Your task to perform on an android device: open app "VLC for Android" (install if not already installed) Image 0: 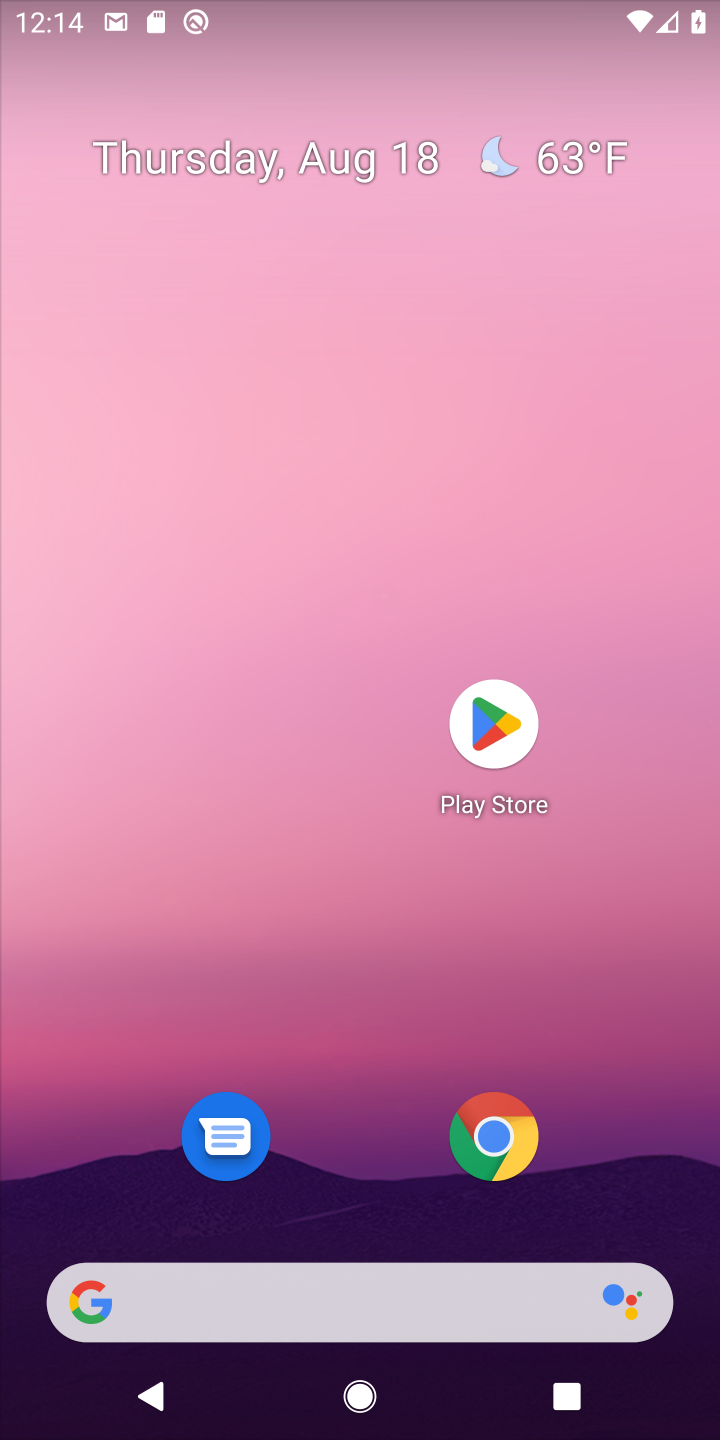
Step 0: press home button
Your task to perform on an android device: open app "VLC for Android" (install if not already installed) Image 1: 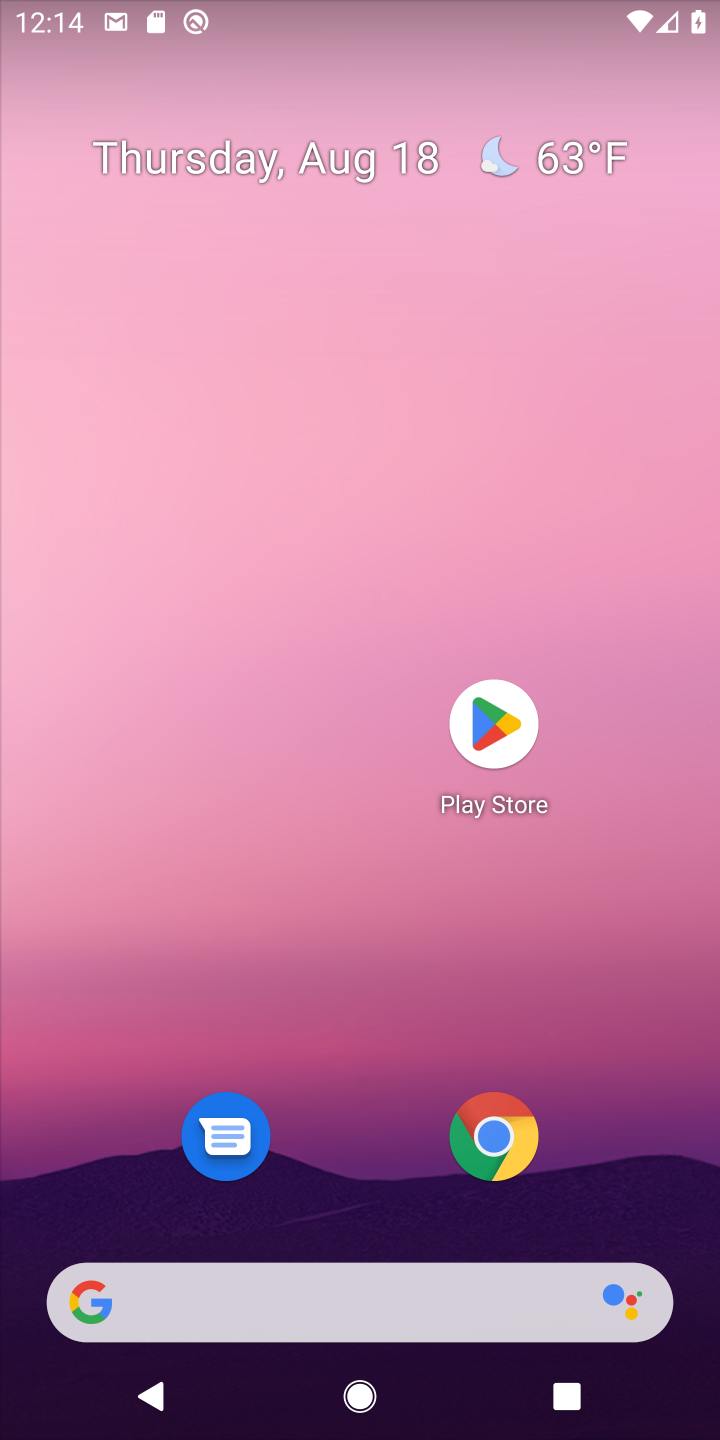
Step 1: click (486, 740)
Your task to perform on an android device: open app "VLC for Android" (install if not already installed) Image 2: 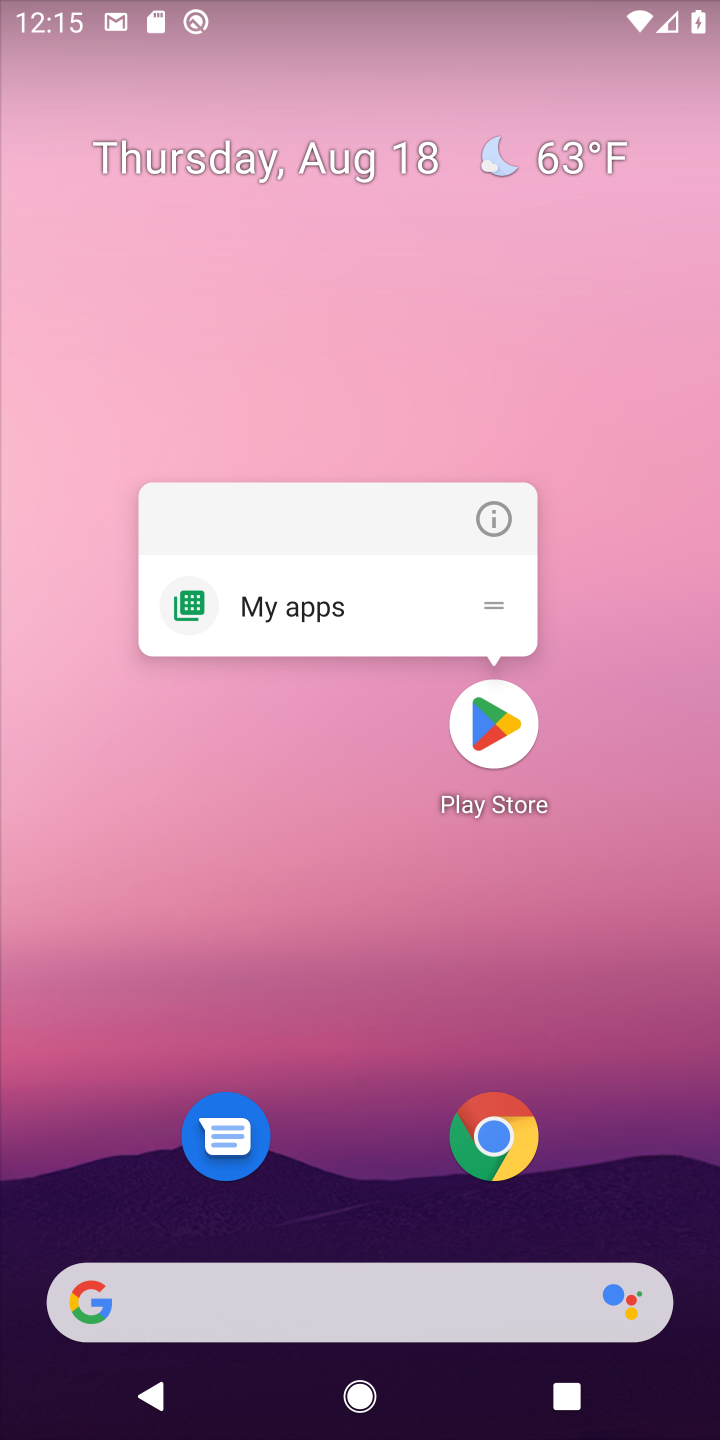
Step 2: click (486, 740)
Your task to perform on an android device: open app "VLC for Android" (install if not already installed) Image 3: 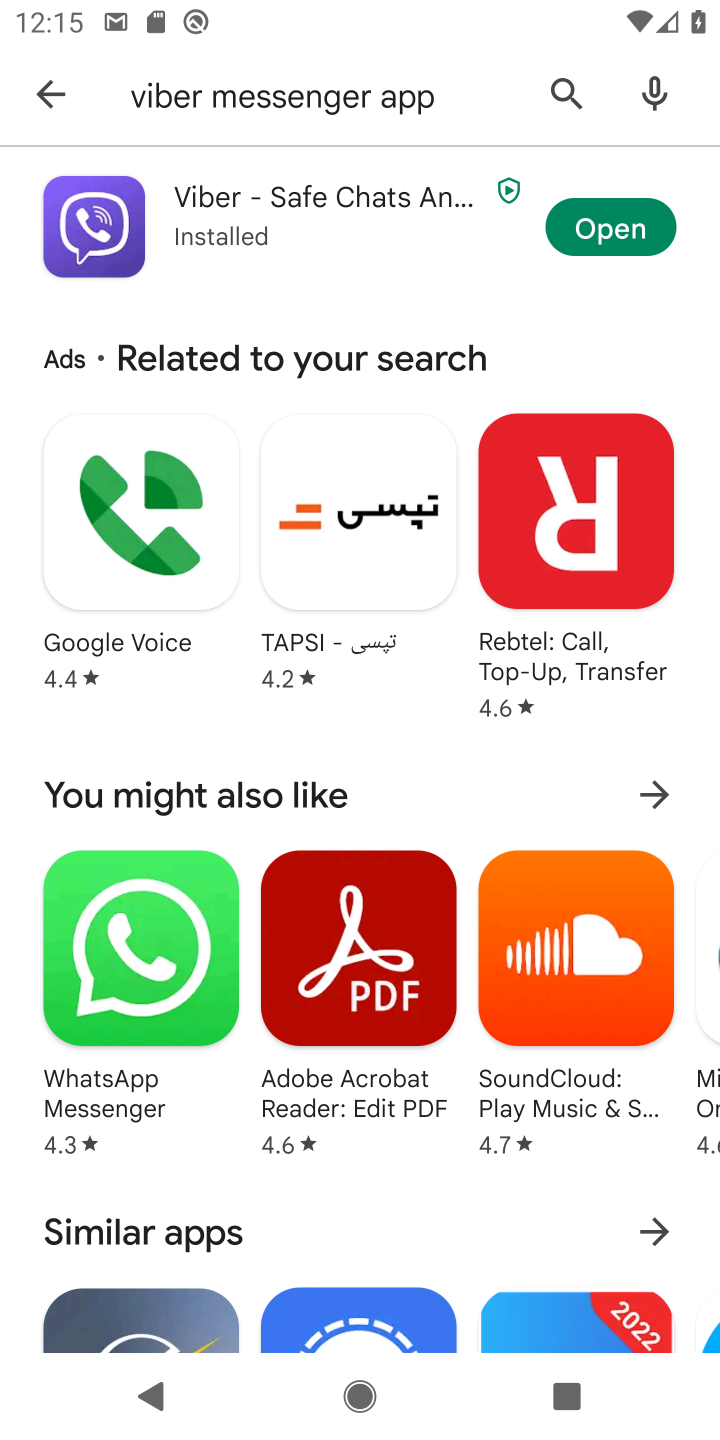
Step 3: click (561, 81)
Your task to perform on an android device: open app "VLC for Android" (install if not already installed) Image 4: 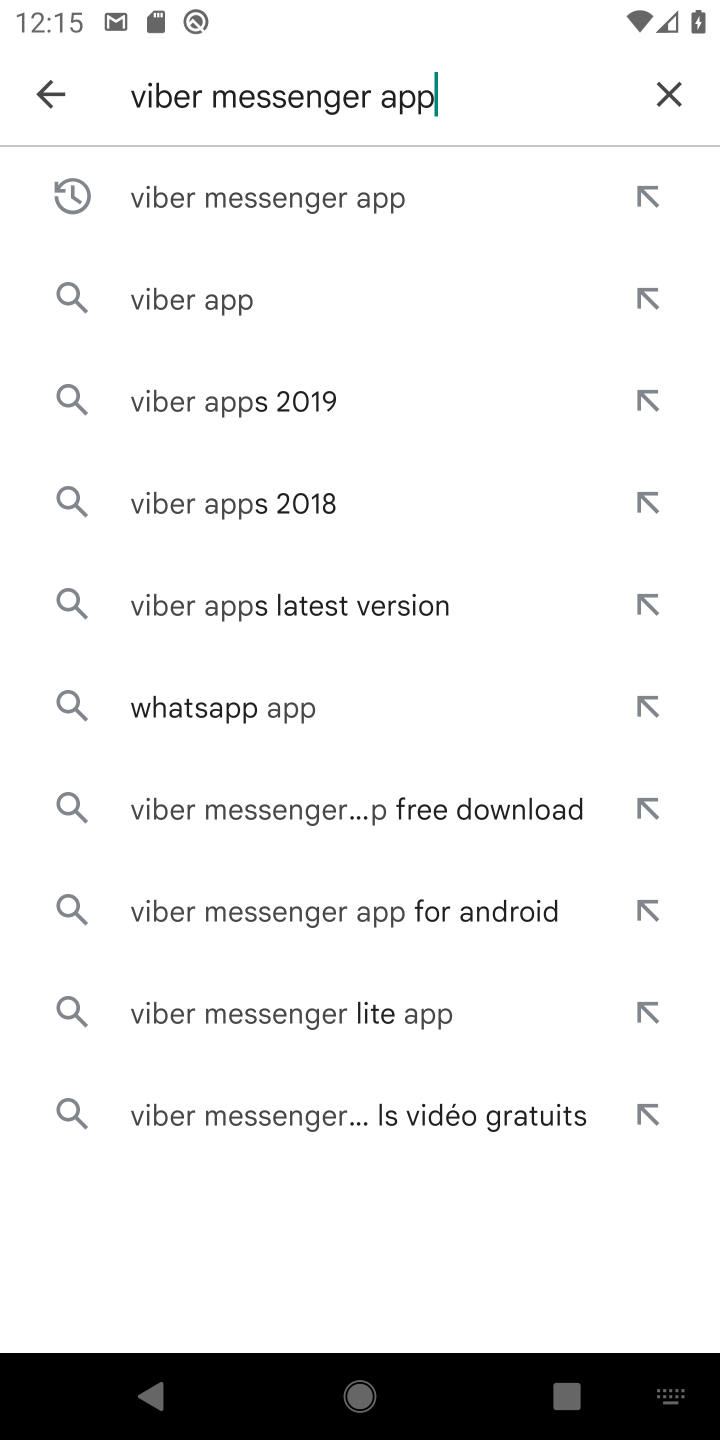
Step 4: click (663, 77)
Your task to perform on an android device: open app "VLC for Android" (install if not already installed) Image 5: 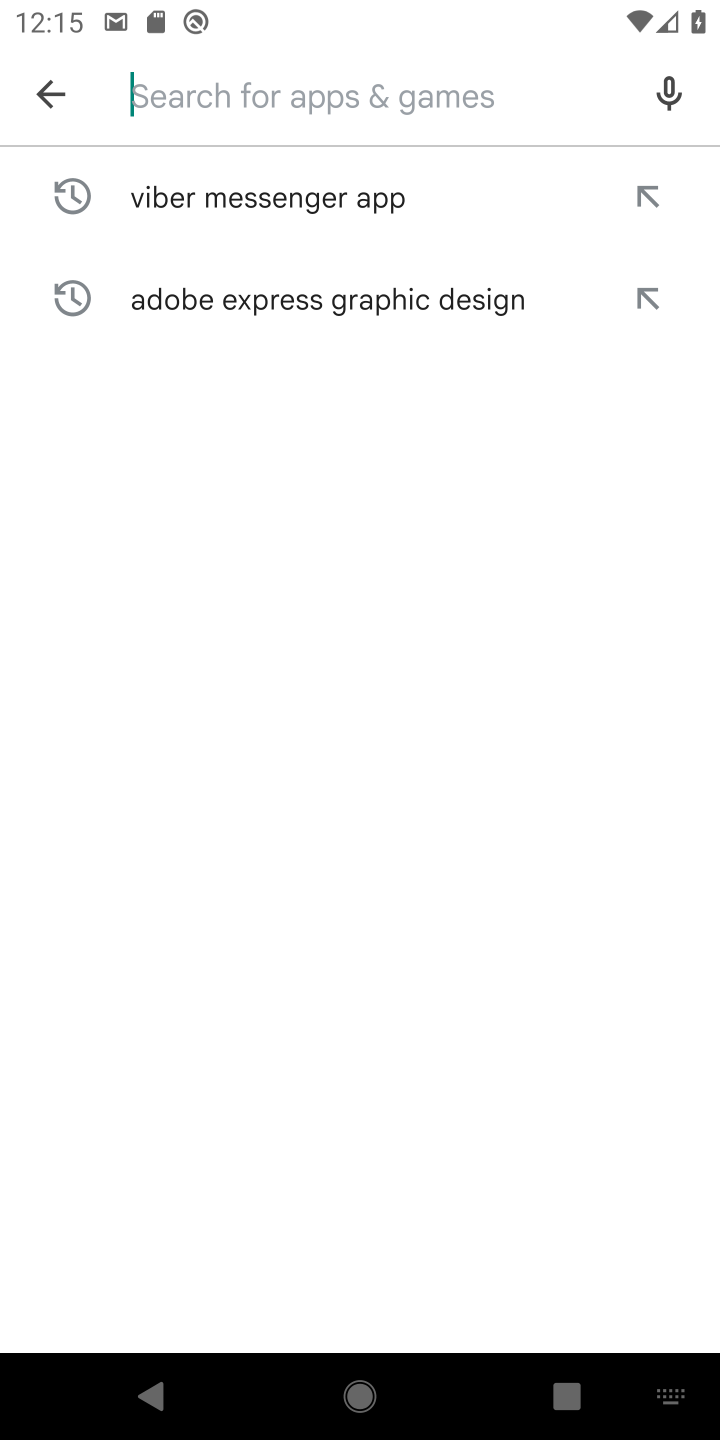
Step 5: type "VLC for Android"
Your task to perform on an android device: open app "VLC for Android" (install if not already installed) Image 6: 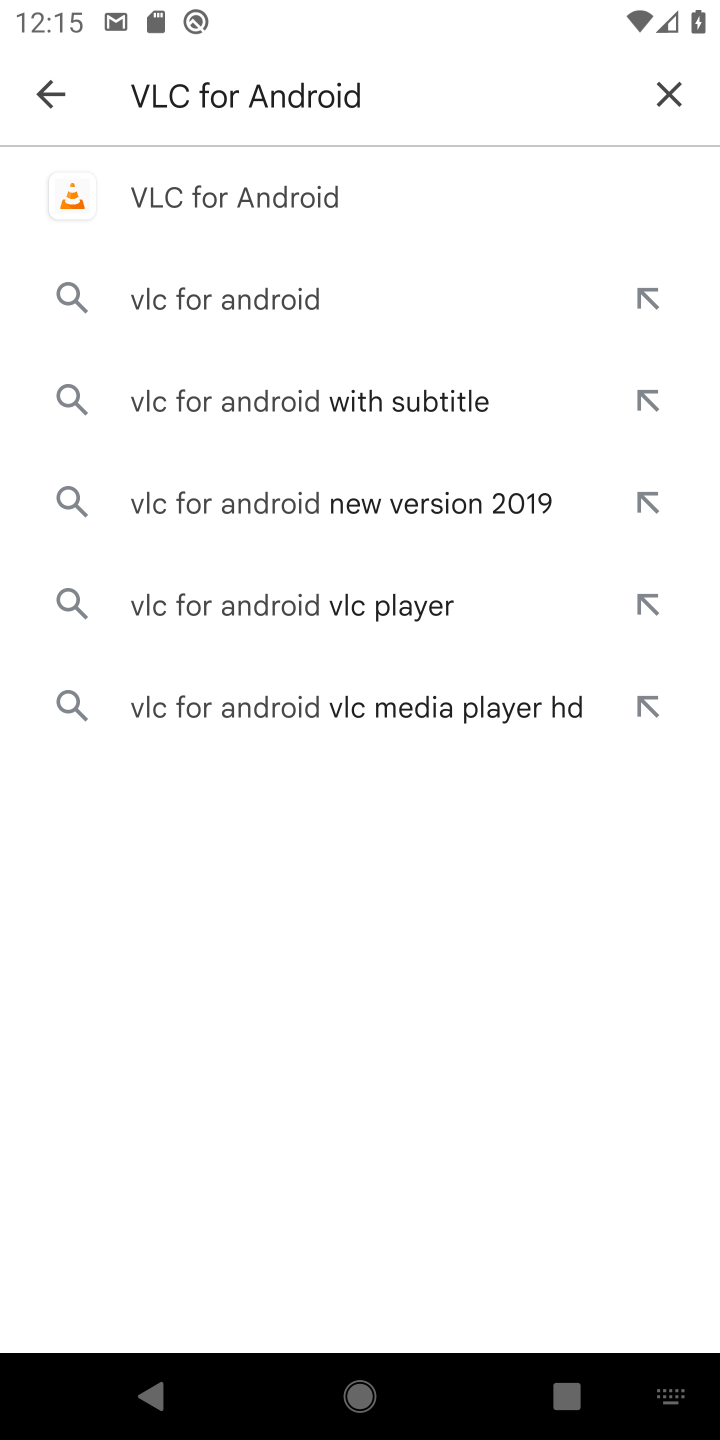
Step 6: click (203, 195)
Your task to perform on an android device: open app "VLC for Android" (install if not already installed) Image 7: 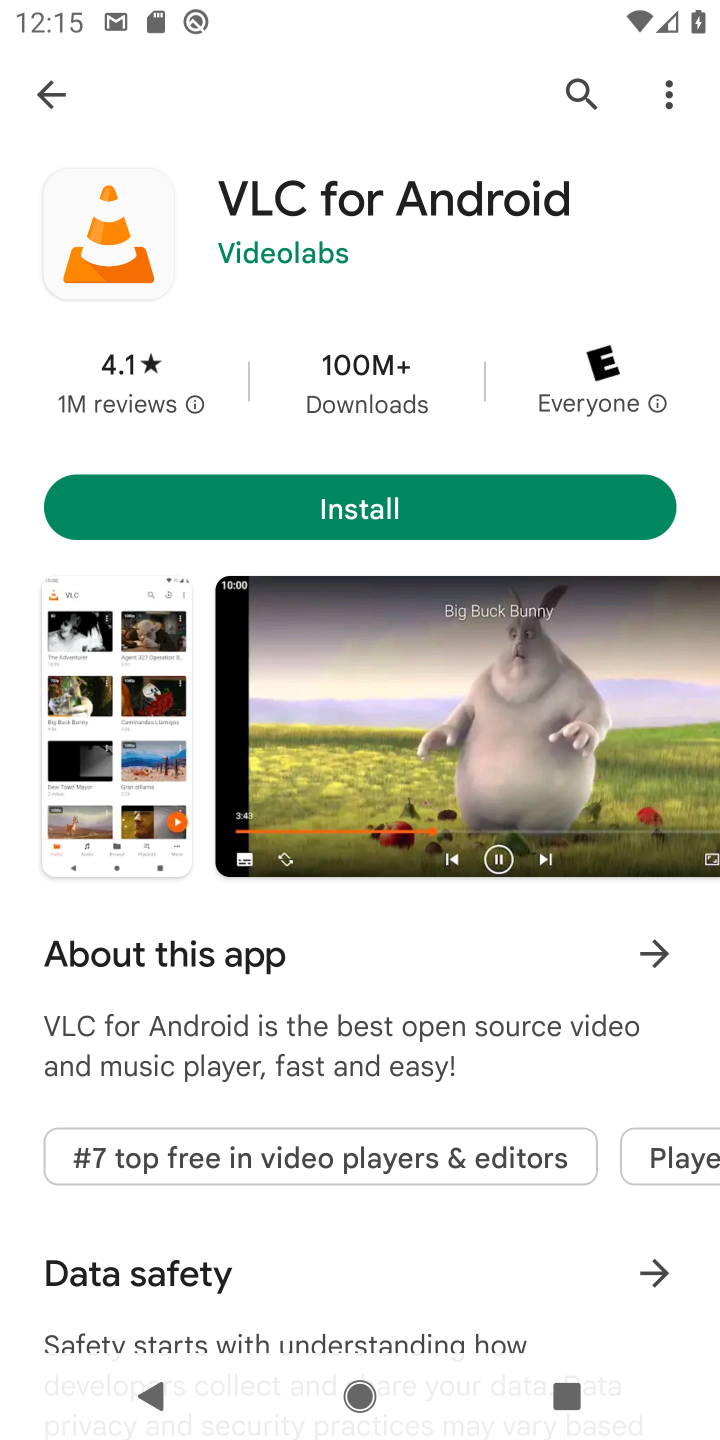
Step 7: click (369, 503)
Your task to perform on an android device: open app "VLC for Android" (install if not already installed) Image 8: 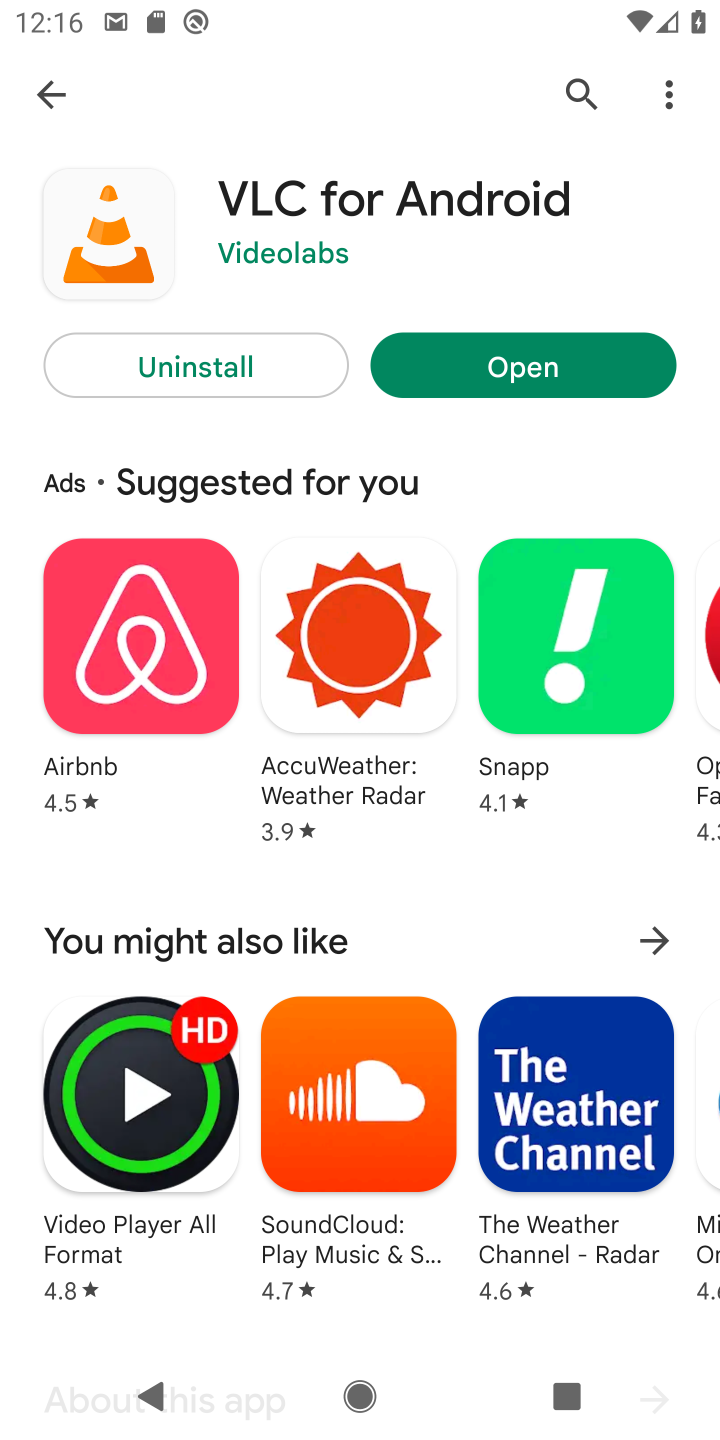
Step 8: click (545, 367)
Your task to perform on an android device: open app "VLC for Android" (install if not already installed) Image 9: 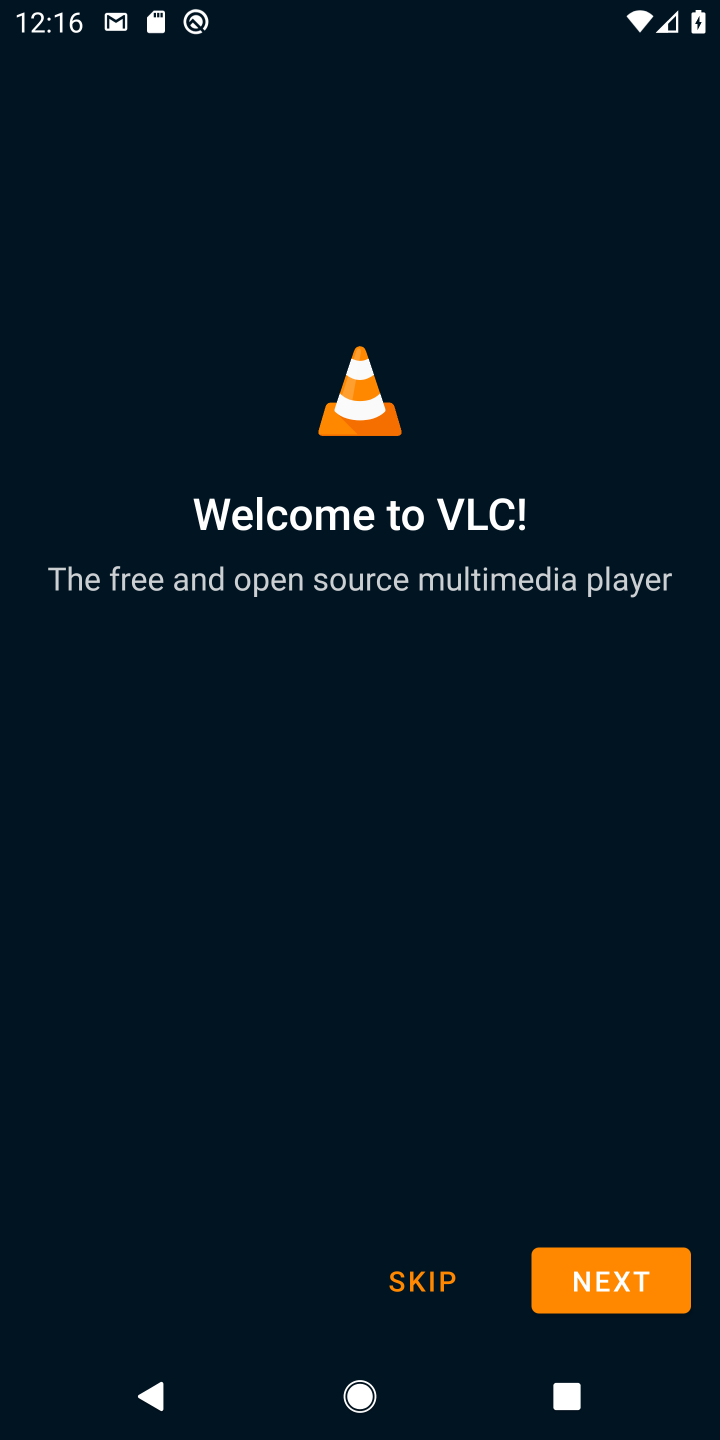
Step 9: task complete